Your task to perform on an android device: make emails show in primary in the gmail app Image 0: 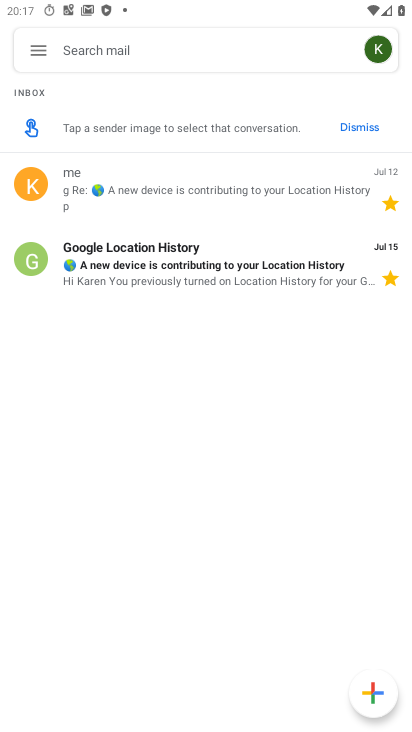
Step 0: press home button
Your task to perform on an android device: make emails show in primary in the gmail app Image 1: 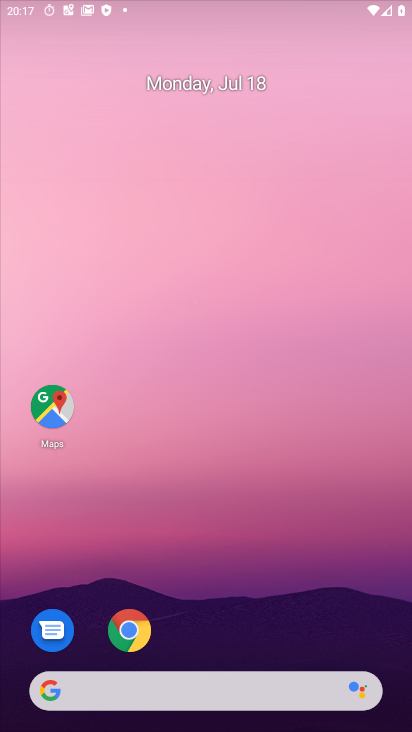
Step 1: drag from (318, 463) to (318, 155)
Your task to perform on an android device: make emails show in primary in the gmail app Image 2: 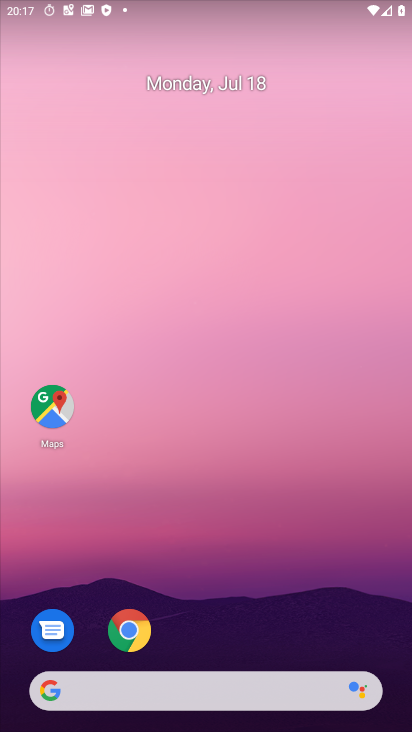
Step 2: drag from (222, 502) to (208, 49)
Your task to perform on an android device: make emails show in primary in the gmail app Image 3: 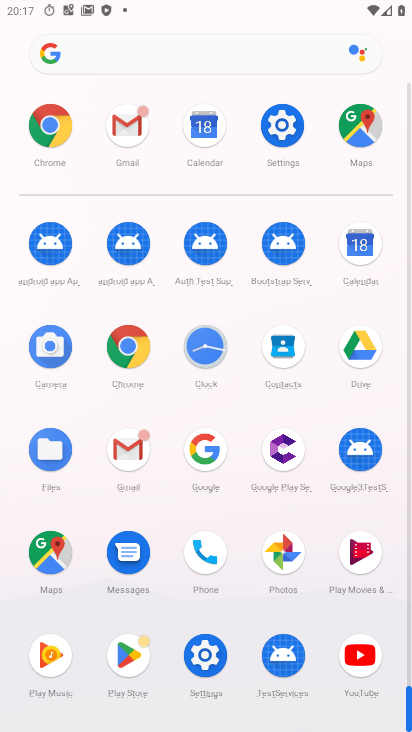
Step 3: click (132, 128)
Your task to perform on an android device: make emails show in primary in the gmail app Image 4: 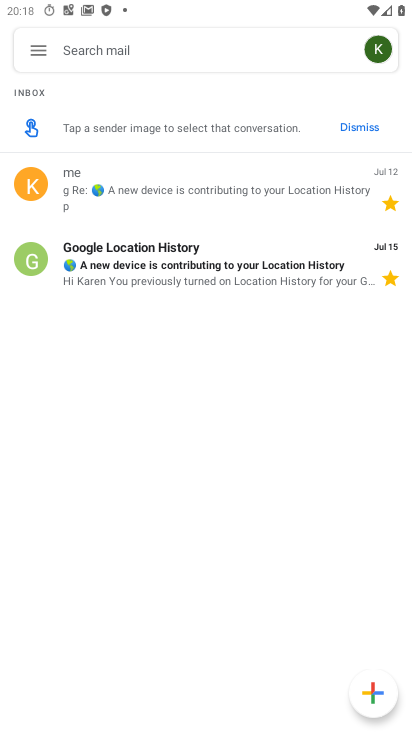
Step 4: click (37, 56)
Your task to perform on an android device: make emails show in primary in the gmail app Image 5: 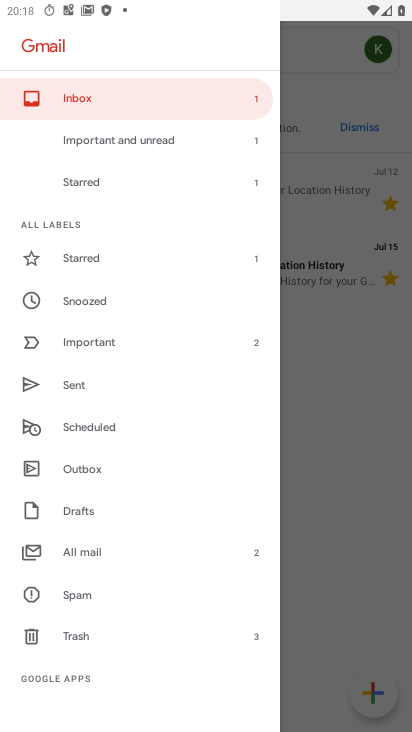
Step 5: drag from (113, 614) to (166, 213)
Your task to perform on an android device: make emails show in primary in the gmail app Image 6: 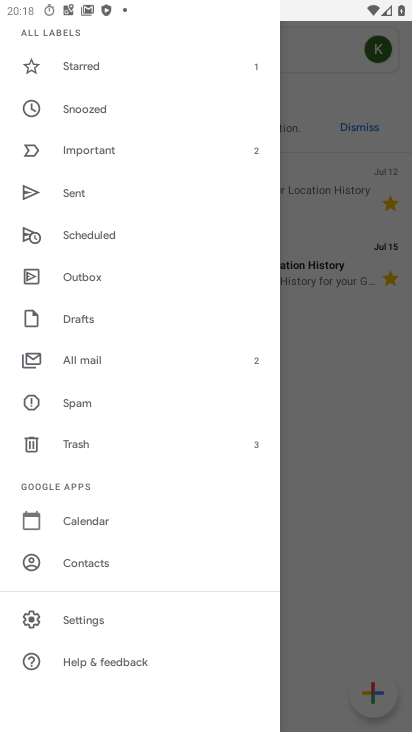
Step 6: click (74, 625)
Your task to perform on an android device: make emails show in primary in the gmail app Image 7: 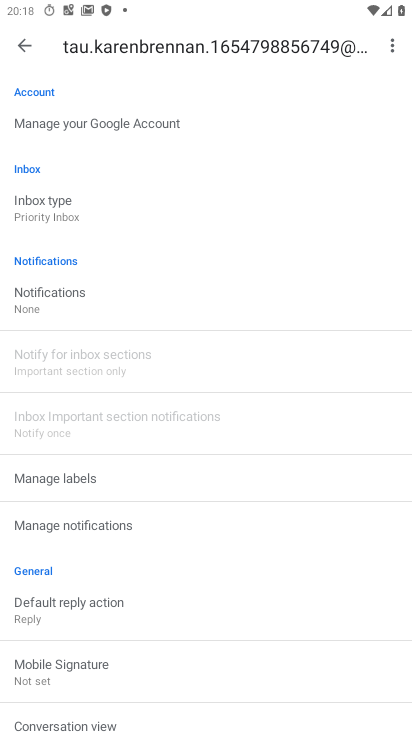
Step 7: click (53, 226)
Your task to perform on an android device: make emails show in primary in the gmail app Image 8: 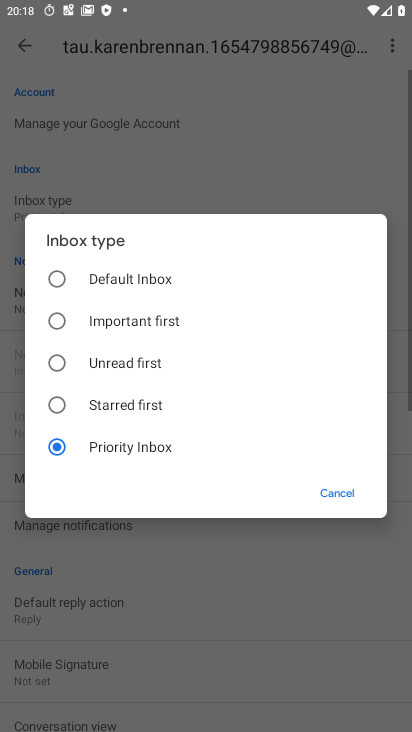
Step 8: click (99, 275)
Your task to perform on an android device: make emails show in primary in the gmail app Image 9: 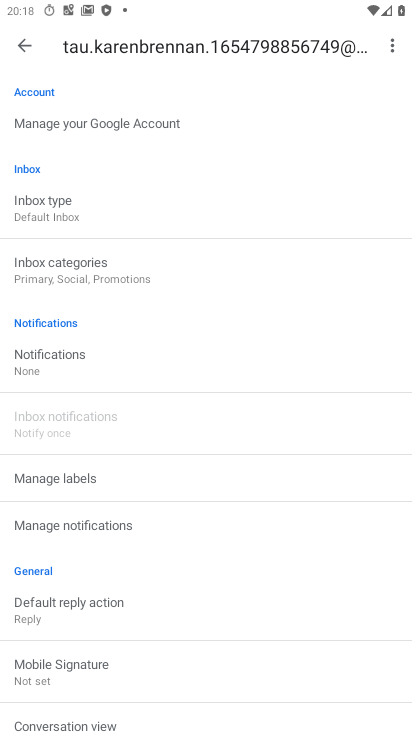
Step 9: task complete